Your task to perform on an android device: check storage Image 0: 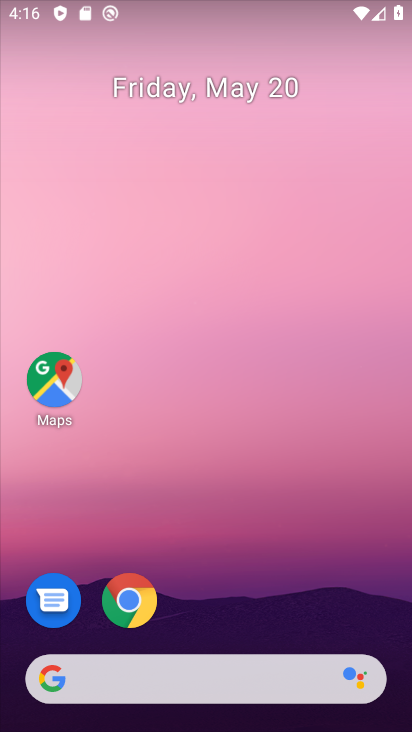
Step 0: drag from (288, 609) to (285, 40)
Your task to perform on an android device: check storage Image 1: 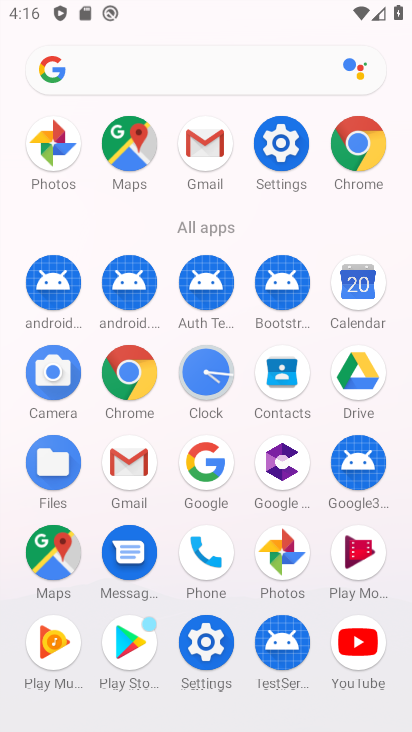
Step 1: click (280, 131)
Your task to perform on an android device: check storage Image 2: 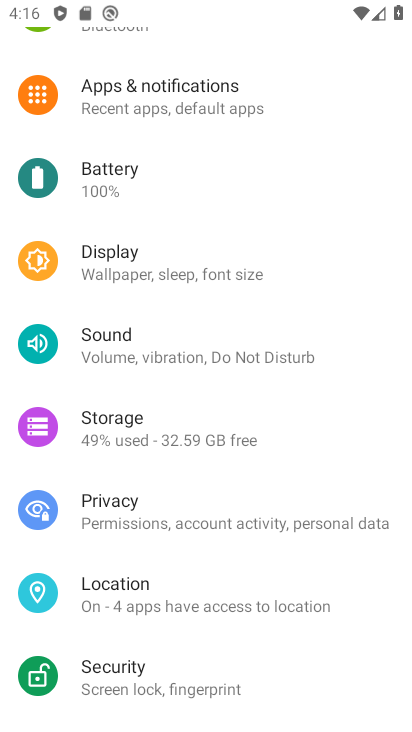
Step 2: click (162, 437)
Your task to perform on an android device: check storage Image 3: 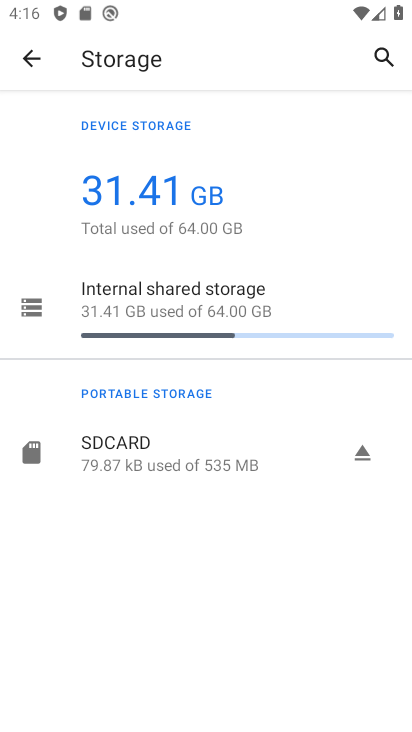
Step 3: task complete